Your task to perform on an android device: Open display settings Image 0: 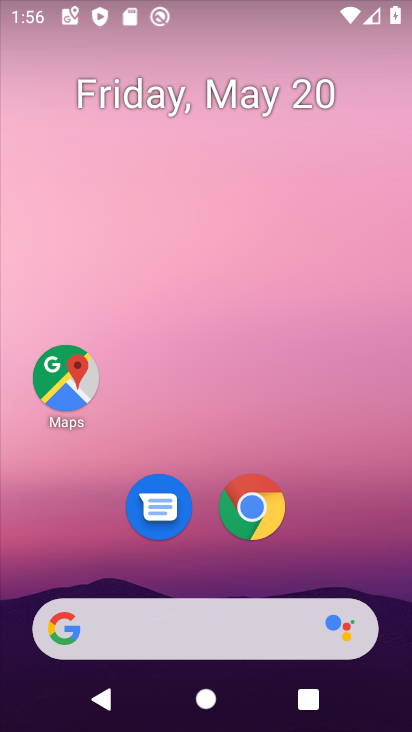
Step 0: drag from (171, 638) to (171, 171)
Your task to perform on an android device: Open display settings Image 1: 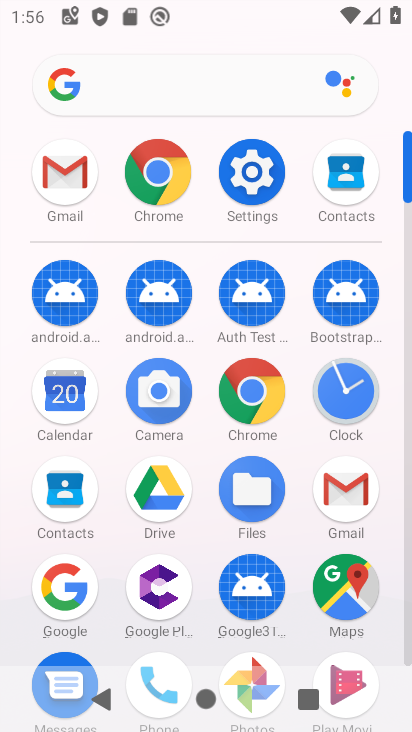
Step 1: click (254, 173)
Your task to perform on an android device: Open display settings Image 2: 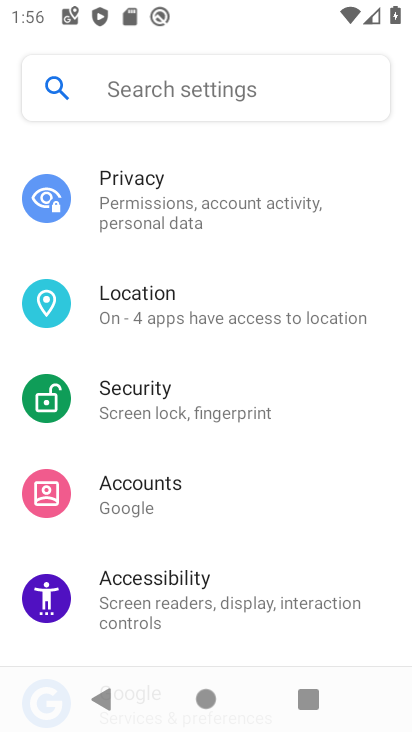
Step 2: drag from (118, 571) to (147, 174)
Your task to perform on an android device: Open display settings Image 3: 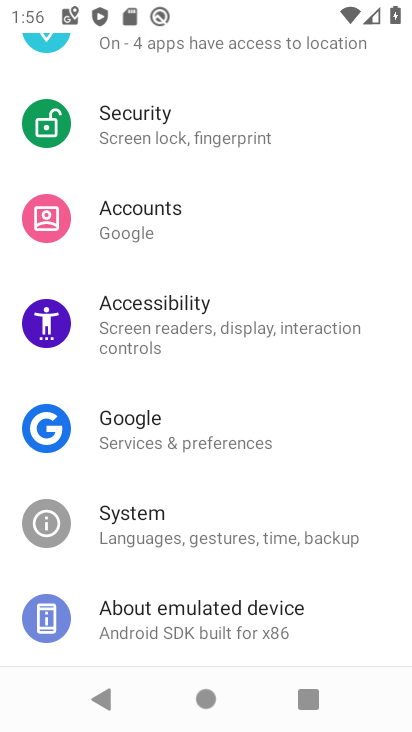
Step 3: drag from (148, 544) to (156, 180)
Your task to perform on an android device: Open display settings Image 4: 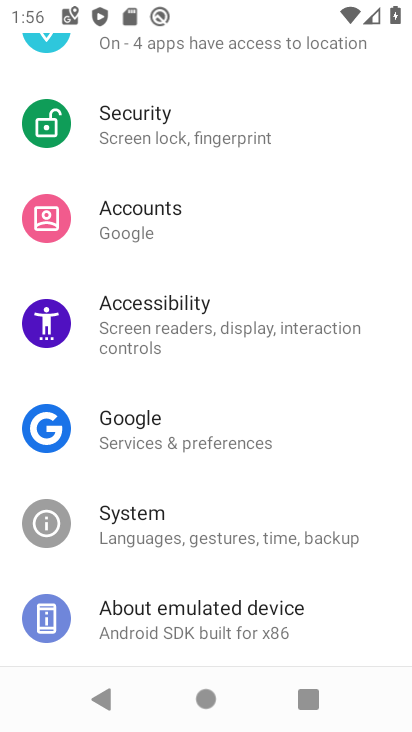
Step 4: drag from (237, 151) to (235, 589)
Your task to perform on an android device: Open display settings Image 5: 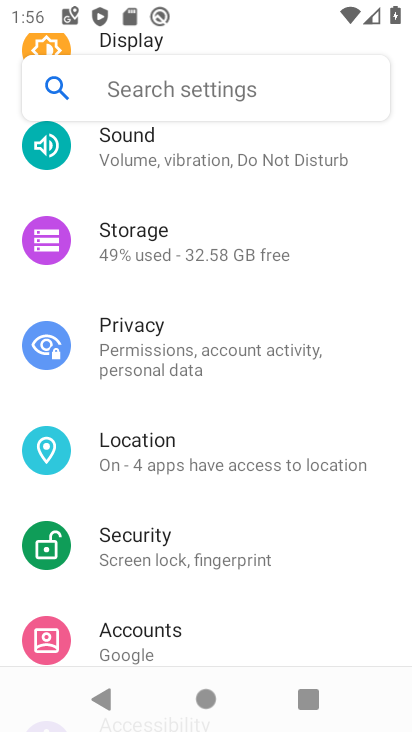
Step 5: drag from (226, 211) to (222, 571)
Your task to perform on an android device: Open display settings Image 6: 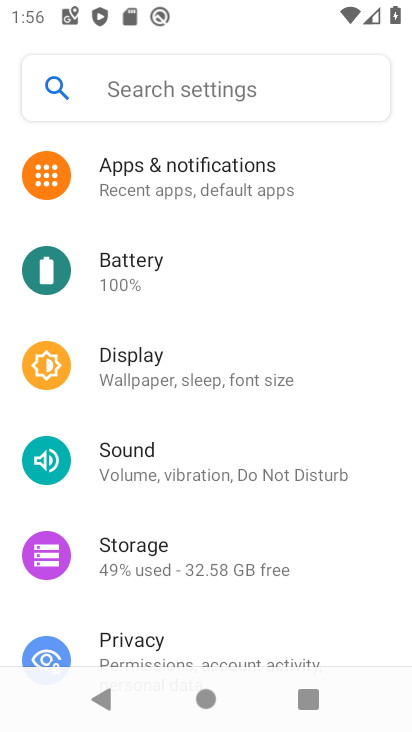
Step 6: click (133, 363)
Your task to perform on an android device: Open display settings Image 7: 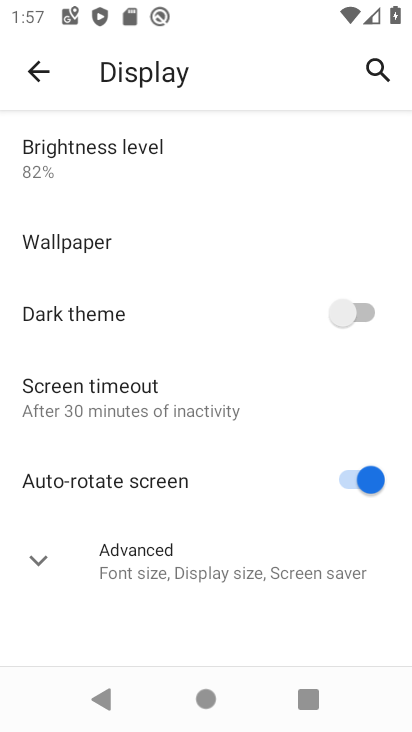
Step 7: task complete